Your task to perform on an android device: Open Google Chrome and click the shortcut for Amazon.com Image 0: 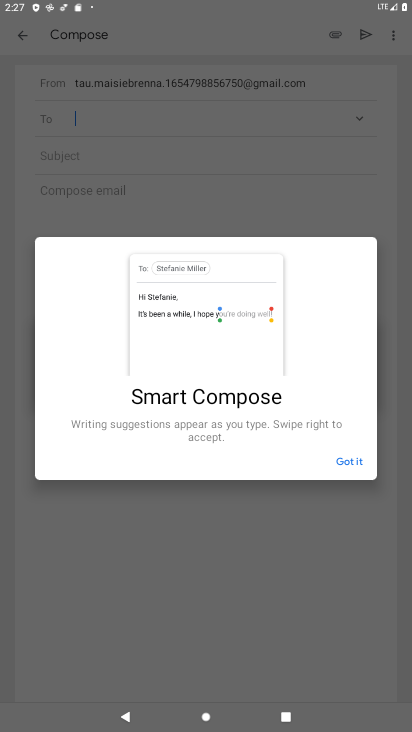
Step 0: click (356, 470)
Your task to perform on an android device: Open Google Chrome and click the shortcut for Amazon.com Image 1: 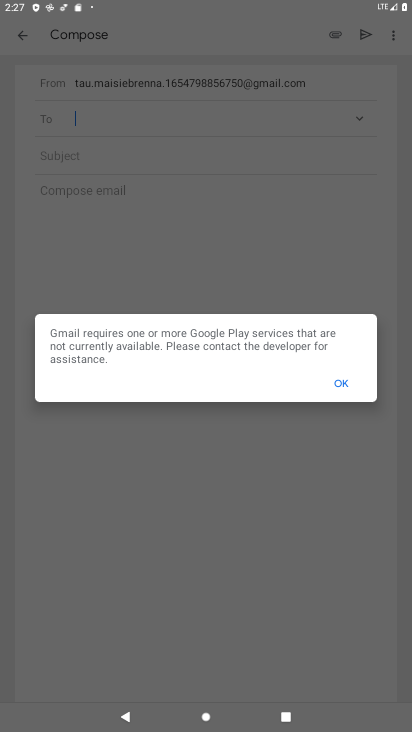
Step 1: press home button
Your task to perform on an android device: Open Google Chrome and click the shortcut for Amazon.com Image 2: 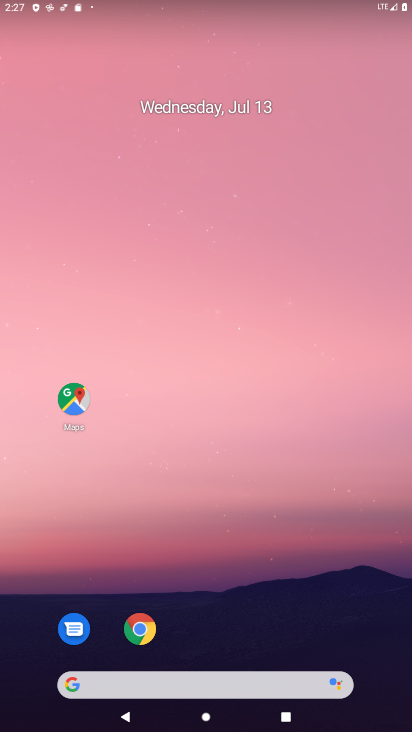
Step 2: click (140, 619)
Your task to perform on an android device: Open Google Chrome and click the shortcut for Amazon.com Image 3: 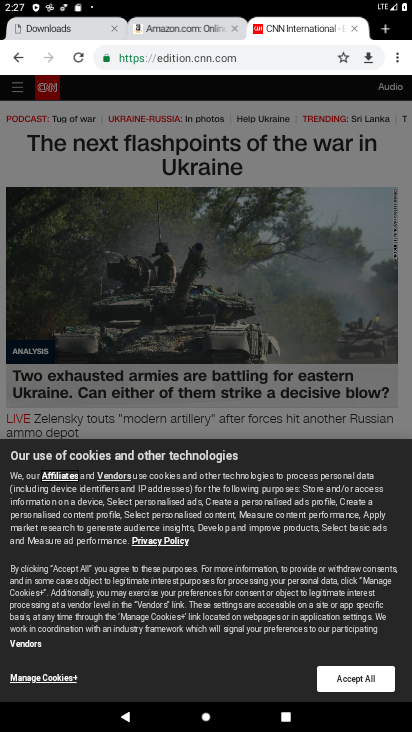
Step 3: click (380, 31)
Your task to perform on an android device: Open Google Chrome and click the shortcut for Amazon.com Image 4: 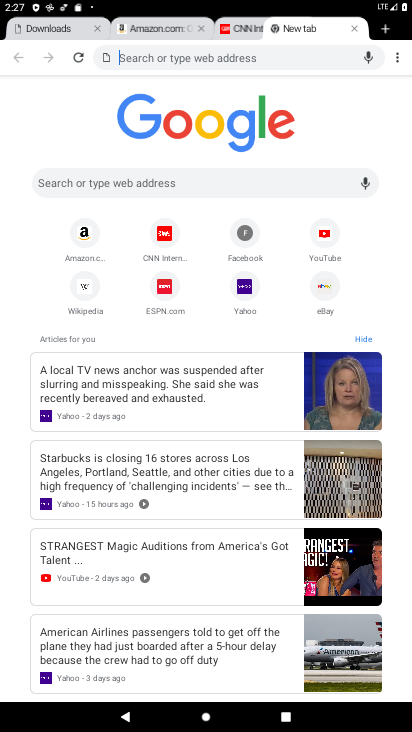
Step 4: click (75, 241)
Your task to perform on an android device: Open Google Chrome and click the shortcut for Amazon.com Image 5: 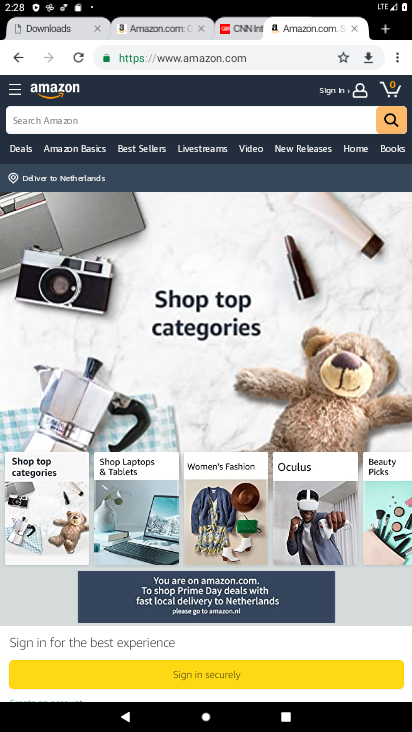
Step 5: task complete